Your task to perform on an android device: add a contact Image 0: 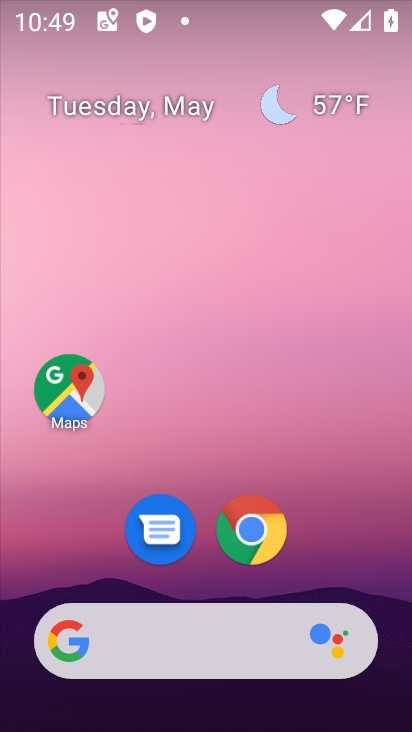
Step 0: drag from (218, 579) to (190, 39)
Your task to perform on an android device: add a contact Image 1: 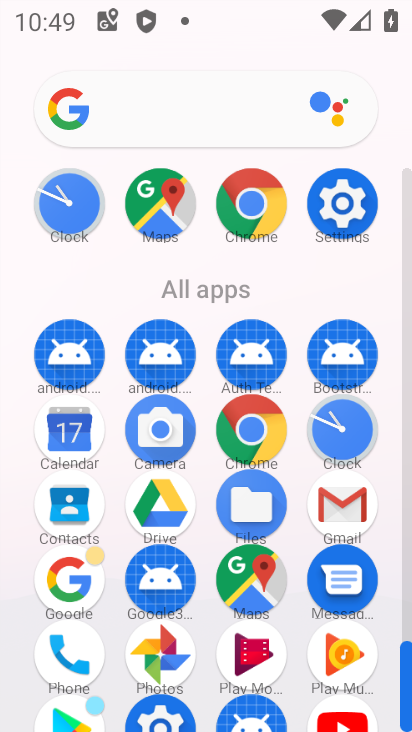
Step 1: click (69, 512)
Your task to perform on an android device: add a contact Image 2: 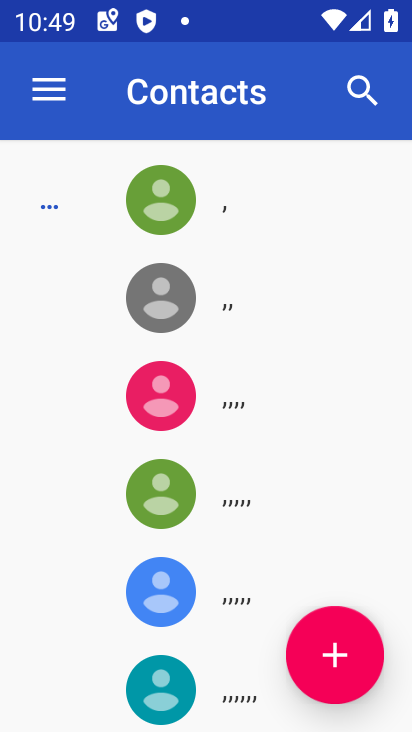
Step 2: click (325, 665)
Your task to perform on an android device: add a contact Image 3: 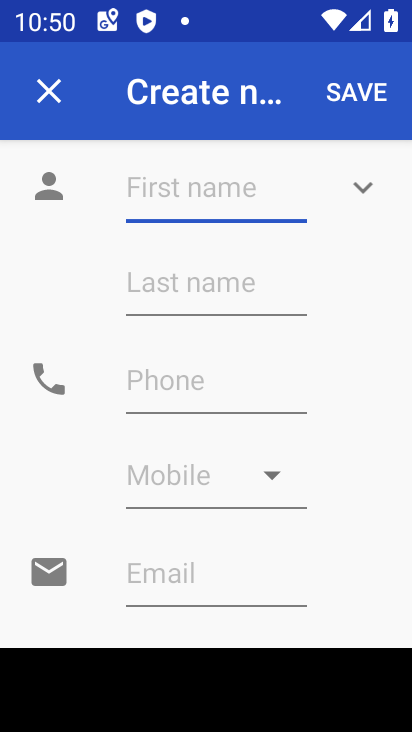
Step 3: type "p"
Your task to perform on an android device: add a contact Image 4: 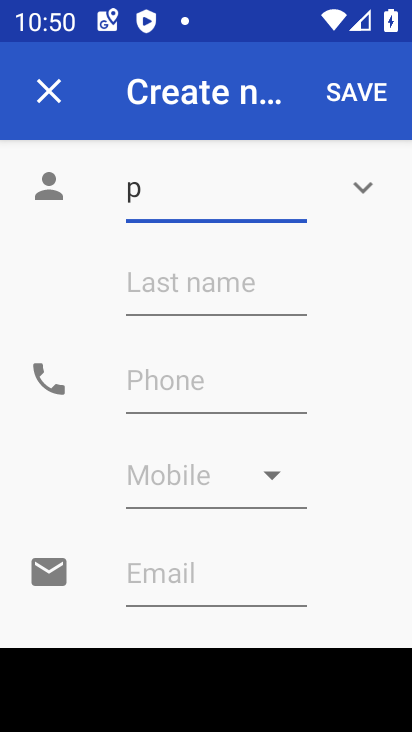
Step 4: click (243, 385)
Your task to perform on an android device: add a contact Image 5: 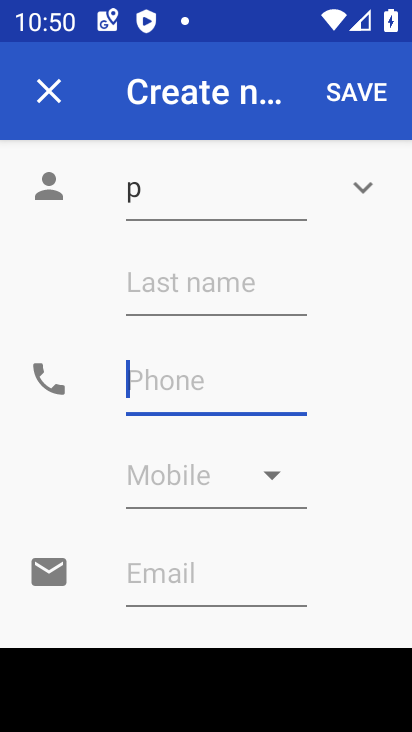
Step 5: type "98765435"
Your task to perform on an android device: add a contact Image 6: 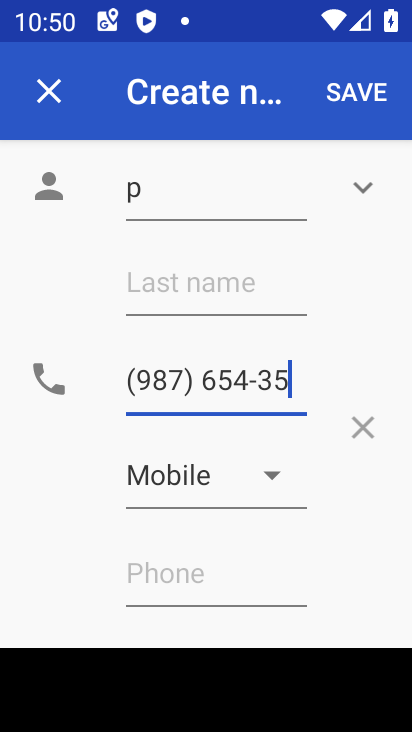
Step 6: click (341, 95)
Your task to perform on an android device: add a contact Image 7: 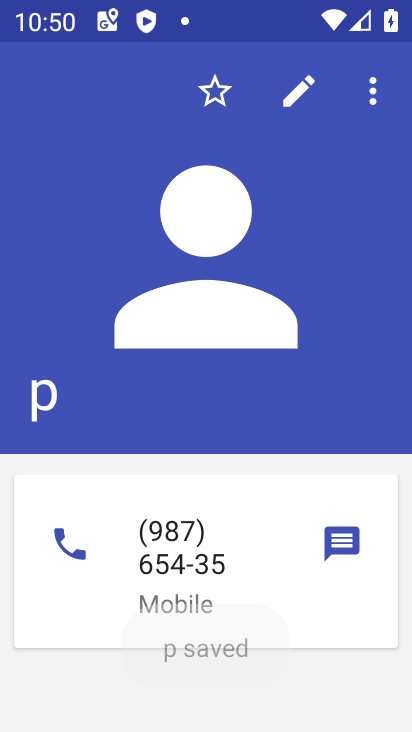
Step 7: task complete